Your task to perform on an android device: Go to privacy settings Image 0: 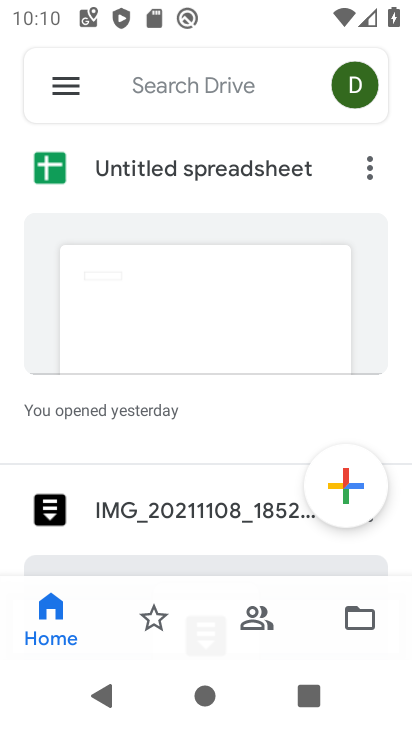
Step 0: press home button
Your task to perform on an android device: Go to privacy settings Image 1: 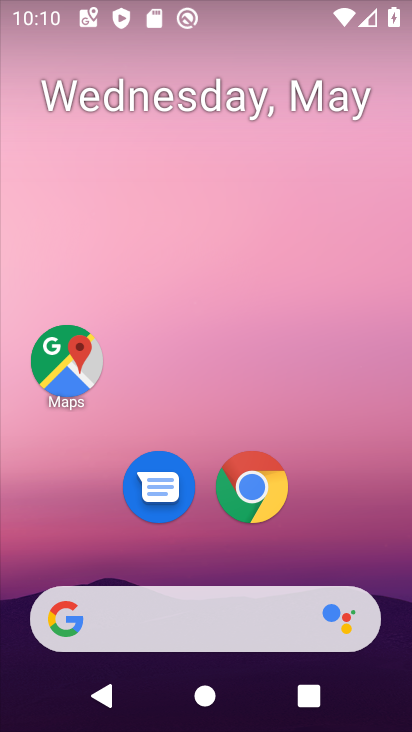
Step 1: drag from (206, 577) to (255, 8)
Your task to perform on an android device: Go to privacy settings Image 2: 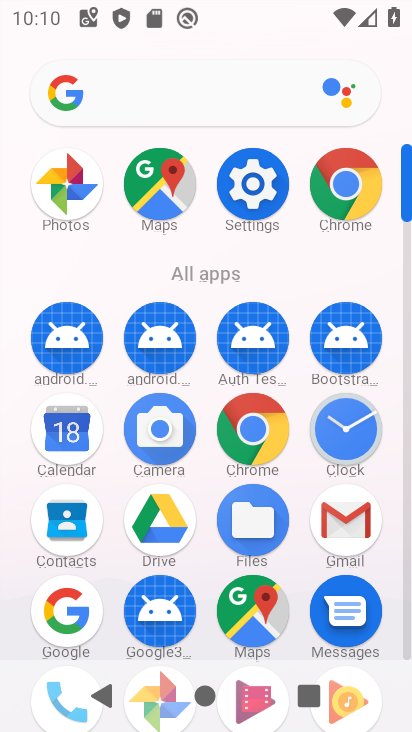
Step 2: click (258, 162)
Your task to perform on an android device: Go to privacy settings Image 3: 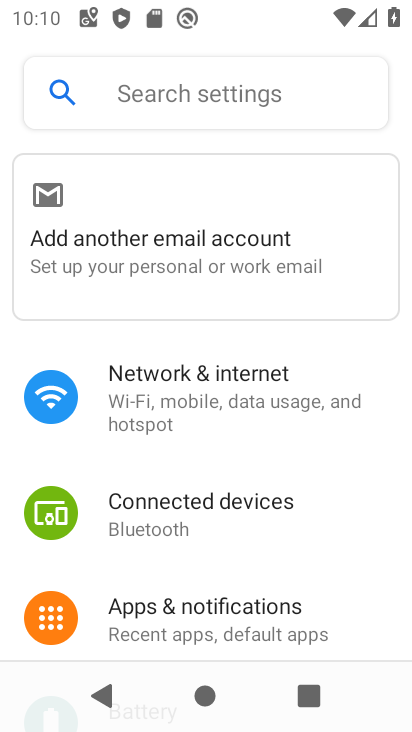
Step 3: drag from (84, 530) to (128, 20)
Your task to perform on an android device: Go to privacy settings Image 4: 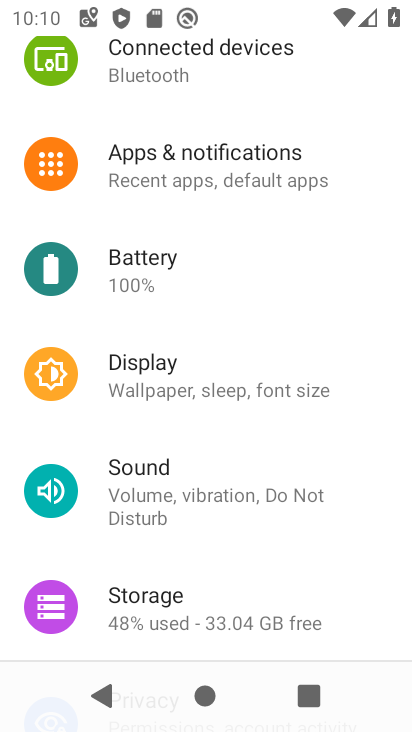
Step 4: drag from (249, 523) to (232, 90)
Your task to perform on an android device: Go to privacy settings Image 5: 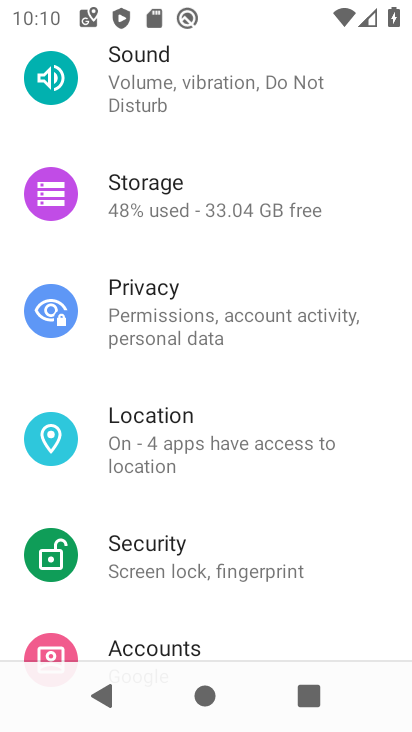
Step 5: drag from (247, 518) to (172, 57)
Your task to perform on an android device: Go to privacy settings Image 6: 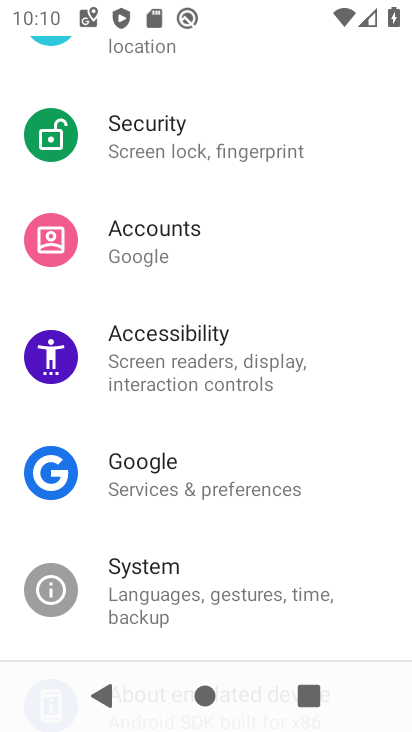
Step 6: drag from (201, 573) to (150, 93)
Your task to perform on an android device: Go to privacy settings Image 7: 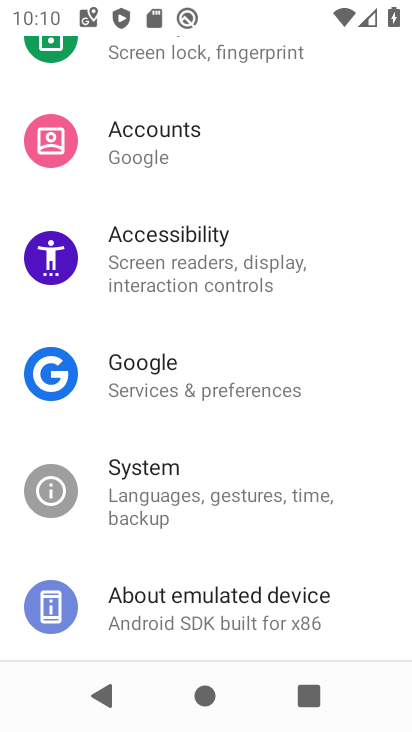
Step 7: drag from (176, 298) to (232, 559)
Your task to perform on an android device: Go to privacy settings Image 8: 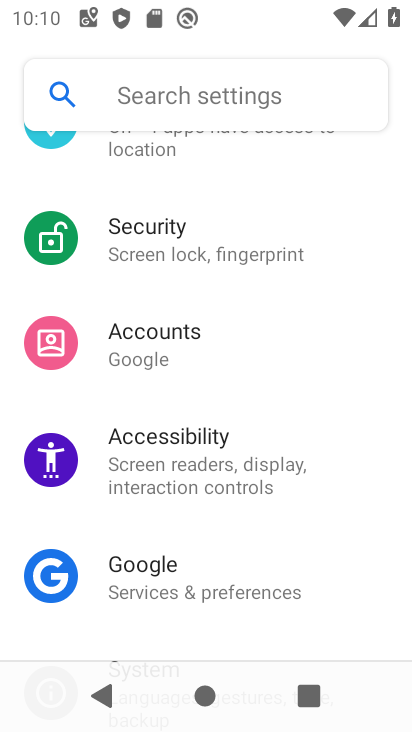
Step 8: drag from (241, 242) to (245, 633)
Your task to perform on an android device: Go to privacy settings Image 9: 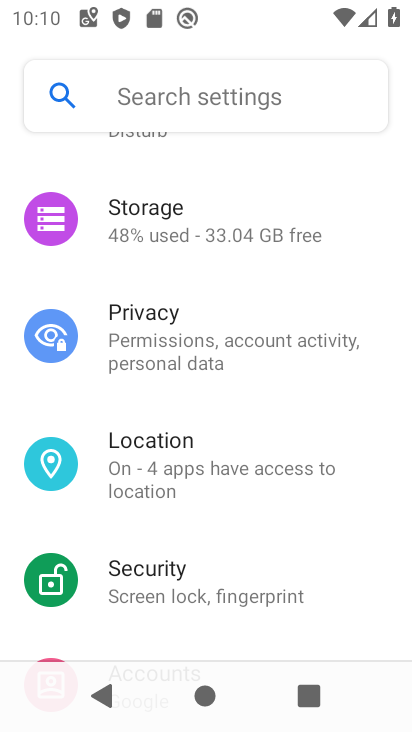
Step 9: click (168, 353)
Your task to perform on an android device: Go to privacy settings Image 10: 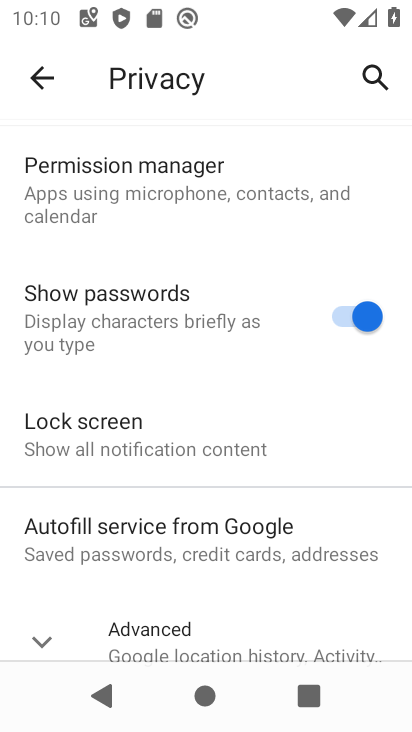
Step 10: task complete